Your task to perform on an android device: Open maps Image 0: 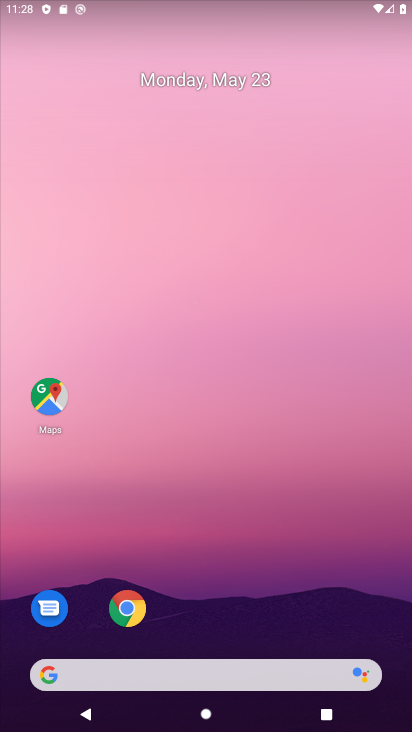
Step 0: drag from (218, 649) to (247, 47)
Your task to perform on an android device: Open maps Image 1: 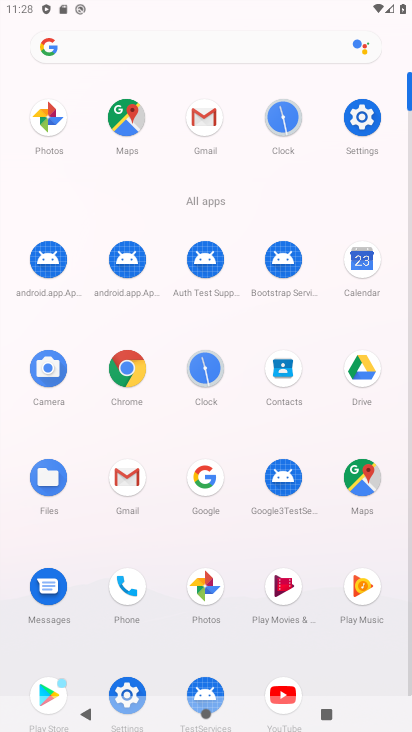
Step 1: click (122, 117)
Your task to perform on an android device: Open maps Image 2: 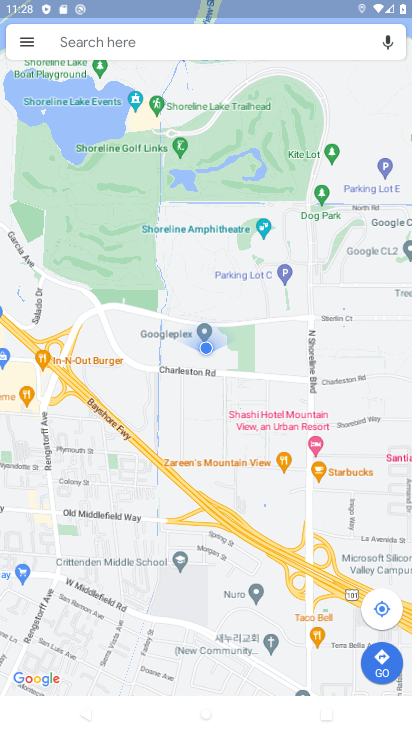
Step 2: task complete